Your task to perform on an android device: toggle airplane mode Image 0: 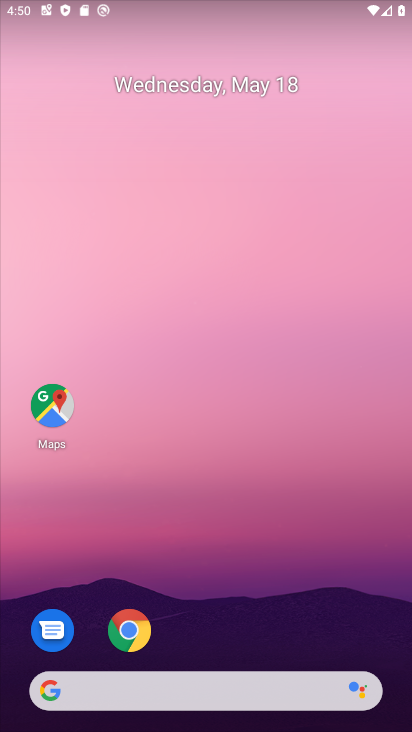
Step 0: drag from (223, 605) to (93, 110)
Your task to perform on an android device: toggle airplane mode Image 1: 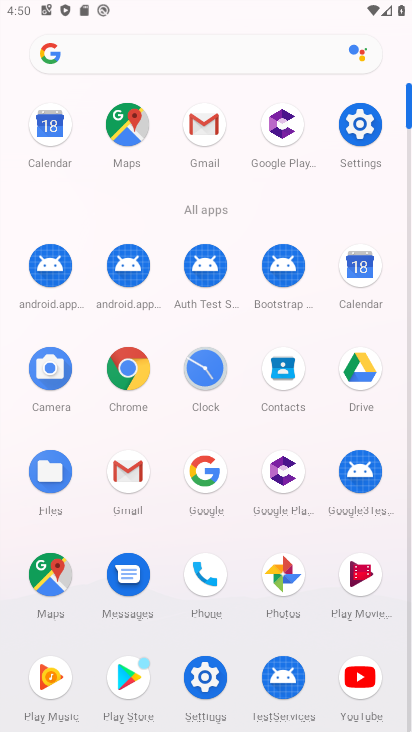
Step 1: click (360, 128)
Your task to perform on an android device: toggle airplane mode Image 2: 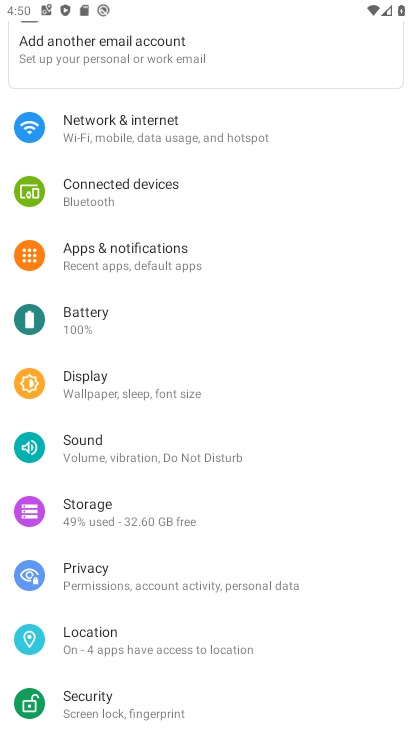
Step 2: click (168, 133)
Your task to perform on an android device: toggle airplane mode Image 3: 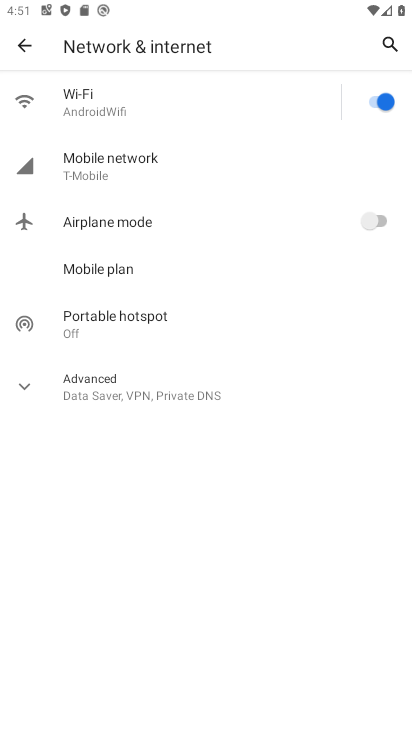
Step 3: click (369, 219)
Your task to perform on an android device: toggle airplane mode Image 4: 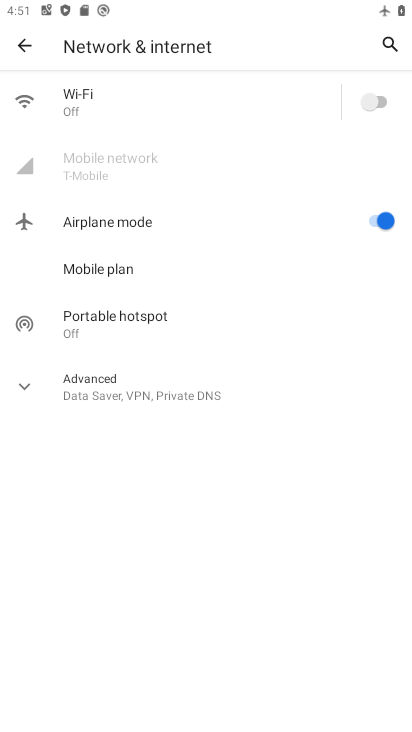
Step 4: task complete